Your task to perform on an android device: Go to Amazon Image 0: 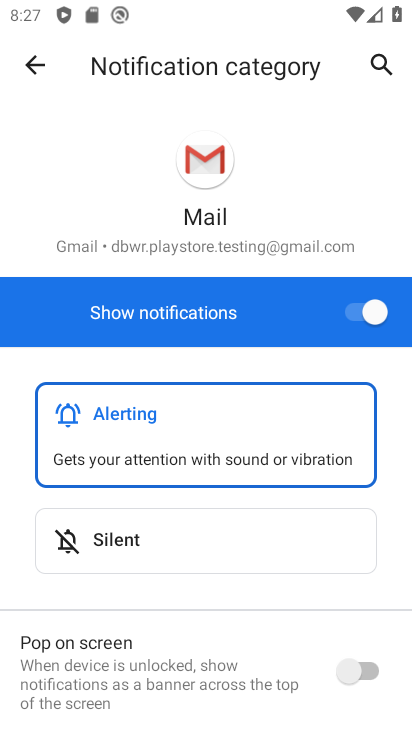
Step 0: press home button
Your task to perform on an android device: Go to Amazon Image 1: 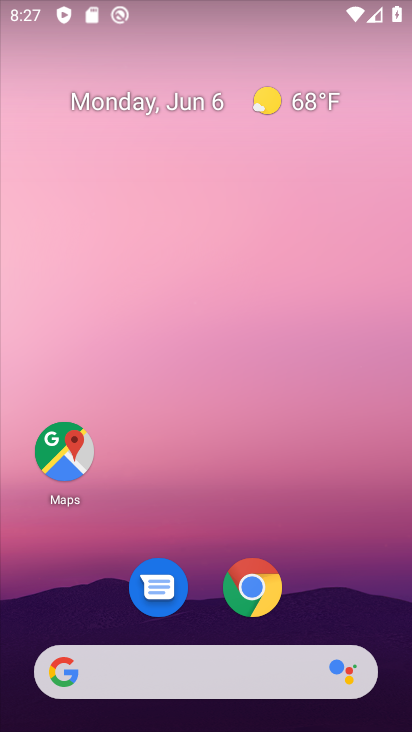
Step 1: click (262, 579)
Your task to perform on an android device: Go to Amazon Image 2: 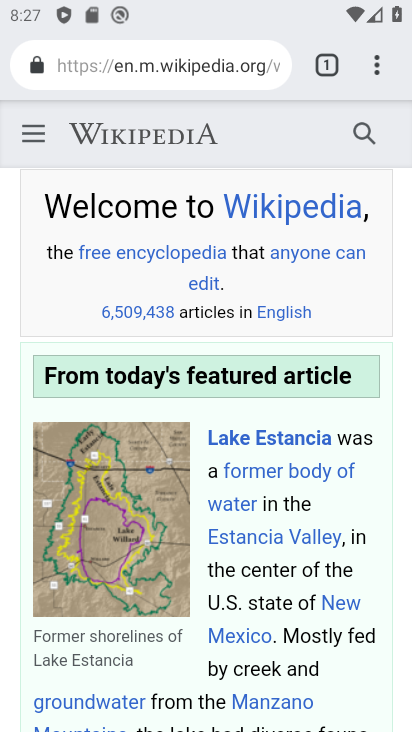
Step 2: click (153, 61)
Your task to perform on an android device: Go to Amazon Image 3: 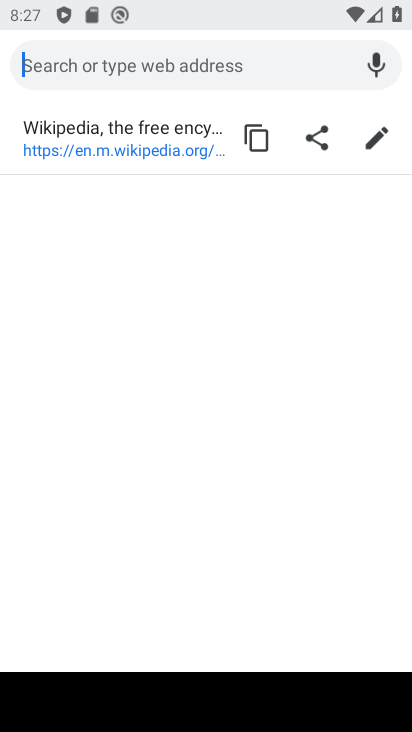
Step 3: type "amazon"
Your task to perform on an android device: Go to Amazon Image 4: 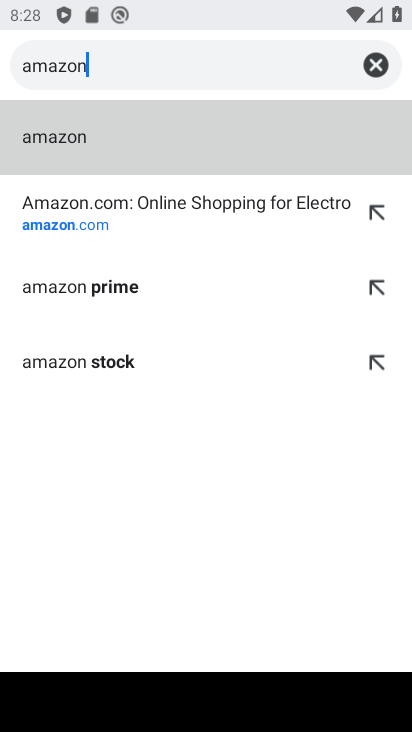
Step 4: click (171, 203)
Your task to perform on an android device: Go to Amazon Image 5: 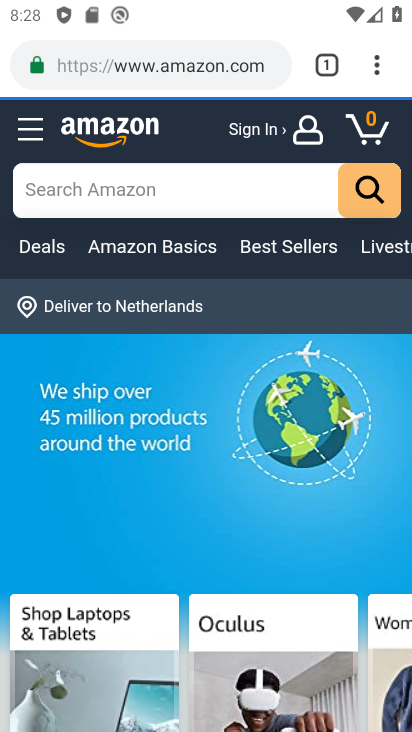
Step 5: task complete